Your task to perform on an android device: Open Google Maps Image 0: 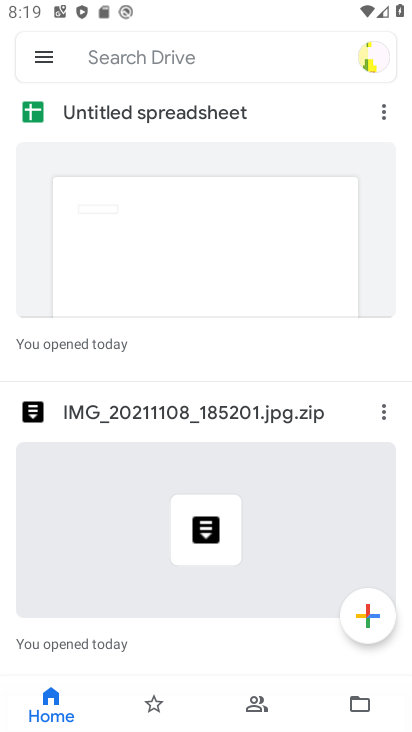
Step 0: press home button
Your task to perform on an android device: Open Google Maps Image 1: 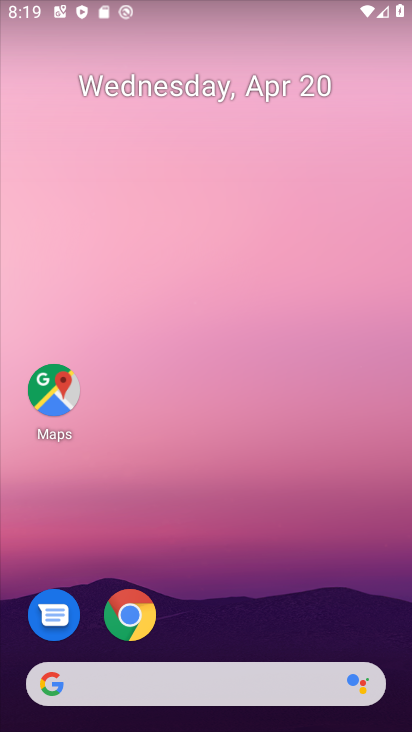
Step 1: click (51, 392)
Your task to perform on an android device: Open Google Maps Image 2: 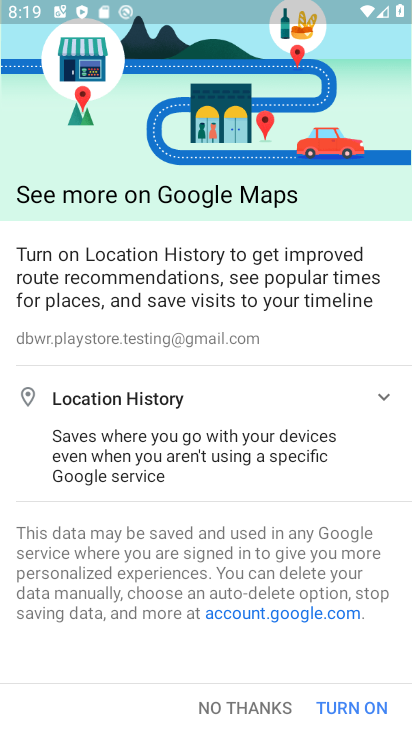
Step 2: click (287, 707)
Your task to perform on an android device: Open Google Maps Image 3: 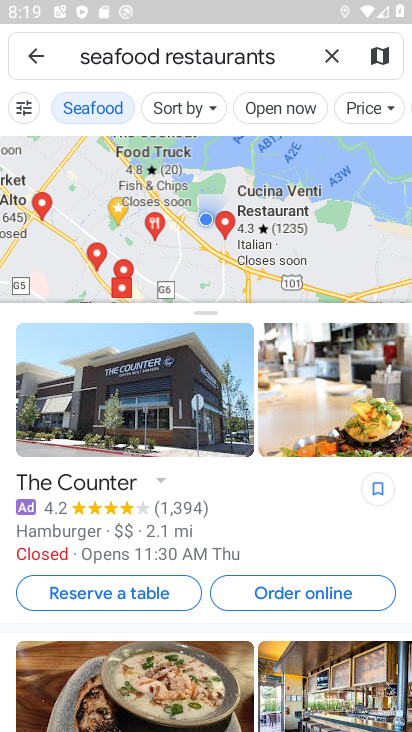
Step 3: task complete